Your task to perform on an android device: toggle data saver in the chrome app Image 0: 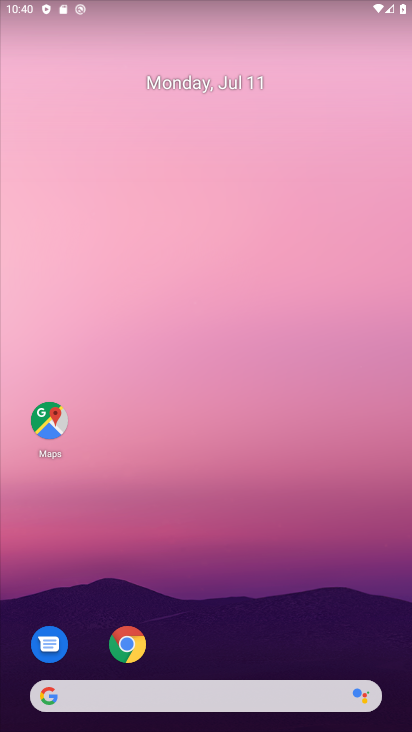
Step 0: drag from (310, 616) to (272, 96)
Your task to perform on an android device: toggle data saver in the chrome app Image 1: 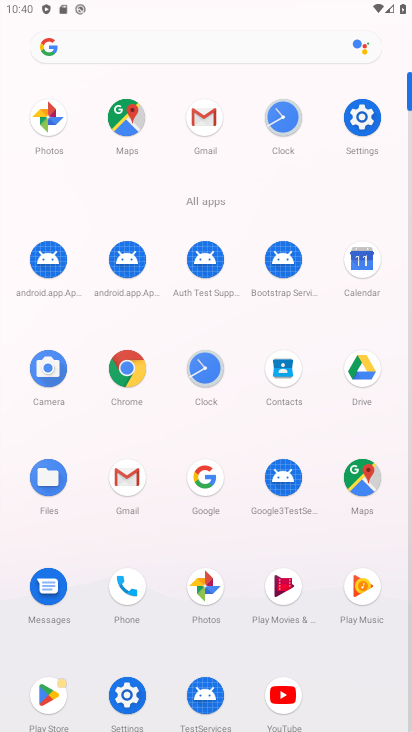
Step 1: click (121, 368)
Your task to perform on an android device: toggle data saver in the chrome app Image 2: 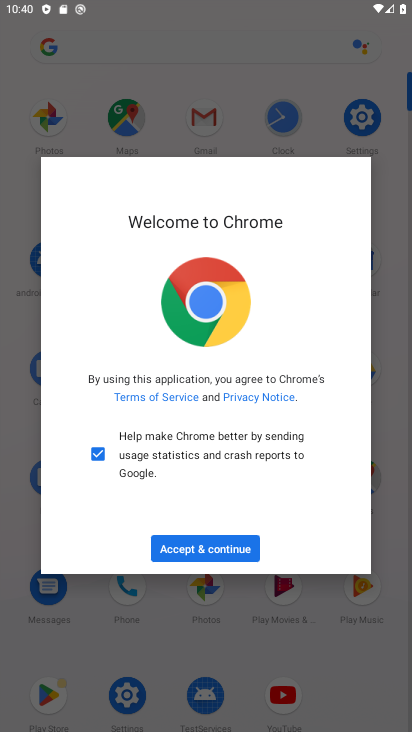
Step 2: click (218, 542)
Your task to perform on an android device: toggle data saver in the chrome app Image 3: 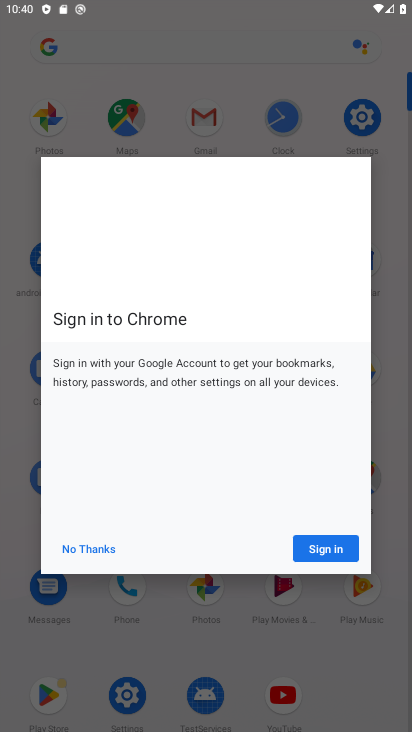
Step 3: click (69, 541)
Your task to perform on an android device: toggle data saver in the chrome app Image 4: 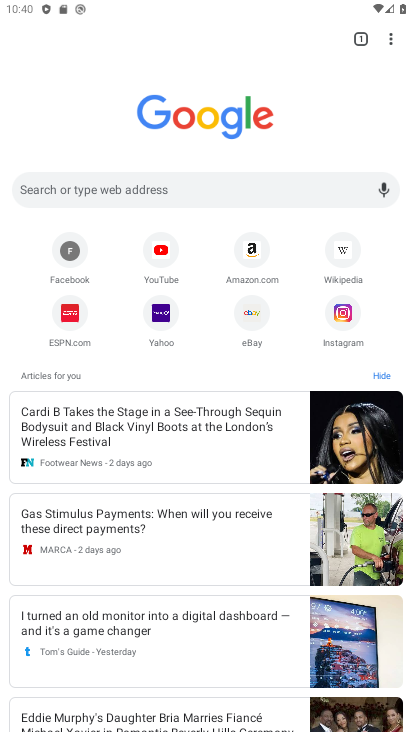
Step 4: drag from (392, 40) to (230, 332)
Your task to perform on an android device: toggle data saver in the chrome app Image 5: 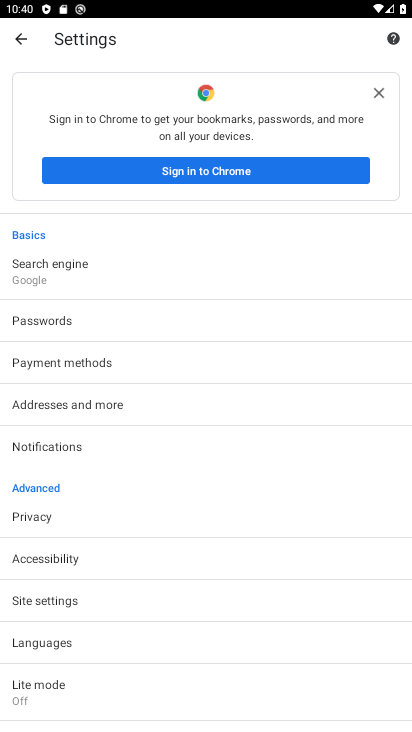
Step 5: drag from (126, 656) to (203, 253)
Your task to perform on an android device: toggle data saver in the chrome app Image 6: 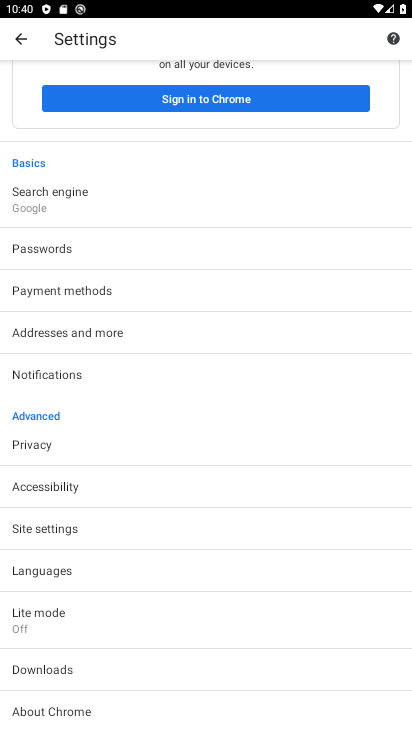
Step 6: click (77, 625)
Your task to perform on an android device: toggle data saver in the chrome app Image 7: 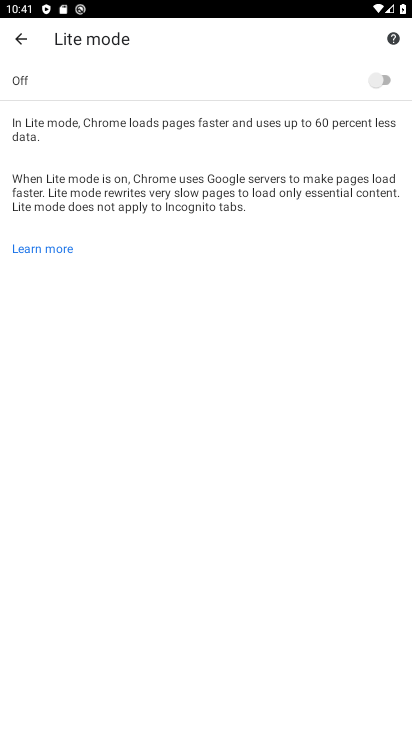
Step 7: click (370, 85)
Your task to perform on an android device: toggle data saver in the chrome app Image 8: 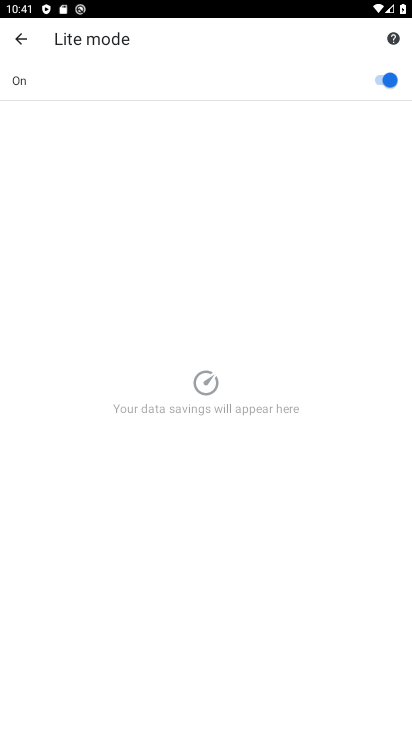
Step 8: task complete